Your task to perform on an android device: change the clock display to show seconds Image 0: 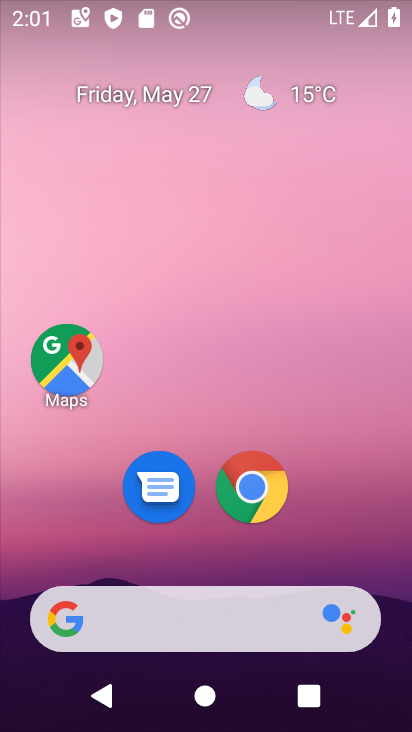
Step 0: drag from (326, 539) to (347, 126)
Your task to perform on an android device: change the clock display to show seconds Image 1: 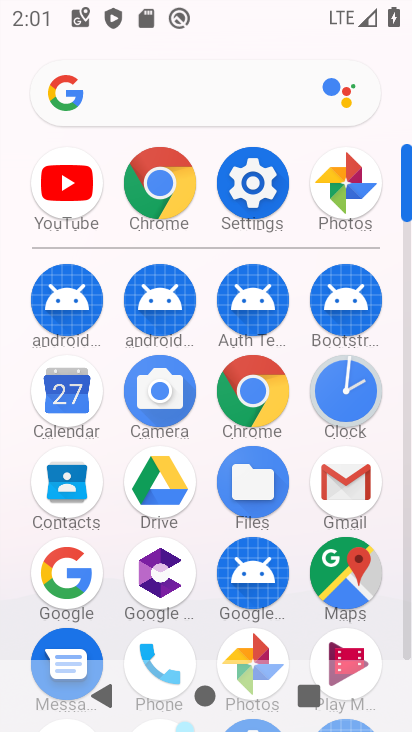
Step 1: click (260, 176)
Your task to perform on an android device: change the clock display to show seconds Image 2: 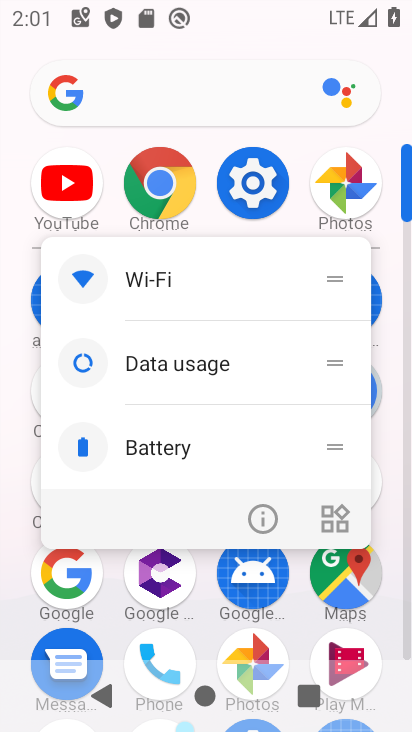
Step 2: click (393, 273)
Your task to perform on an android device: change the clock display to show seconds Image 3: 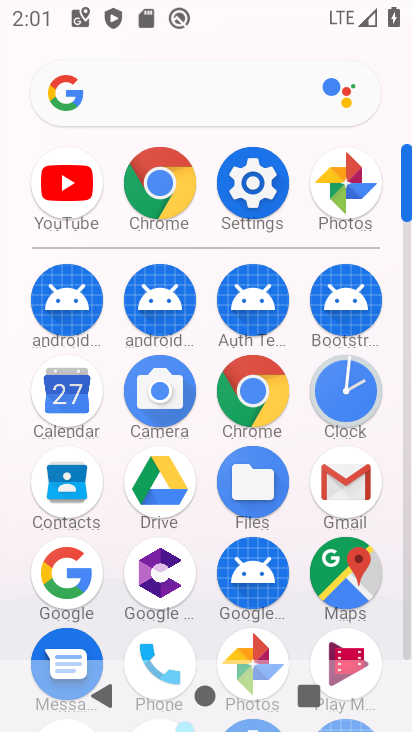
Step 3: click (337, 399)
Your task to perform on an android device: change the clock display to show seconds Image 4: 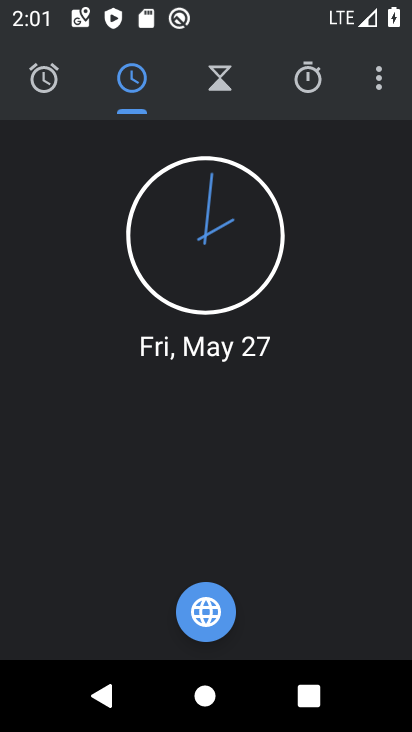
Step 4: click (383, 80)
Your task to perform on an android device: change the clock display to show seconds Image 5: 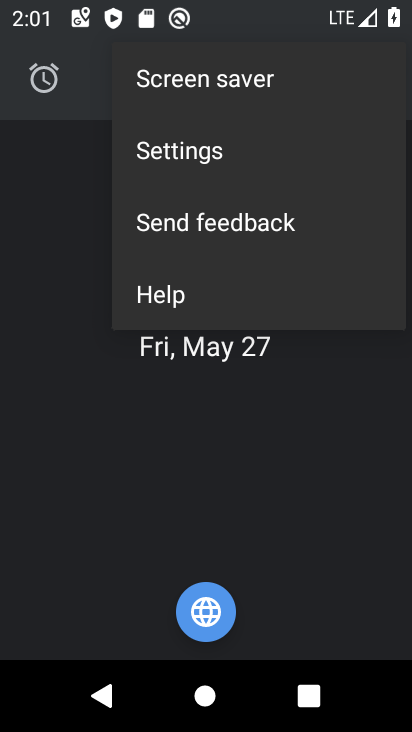
Step 5: click (220, 165)
Your task to perform on an android device: change the clock display to show seconds Image 6: 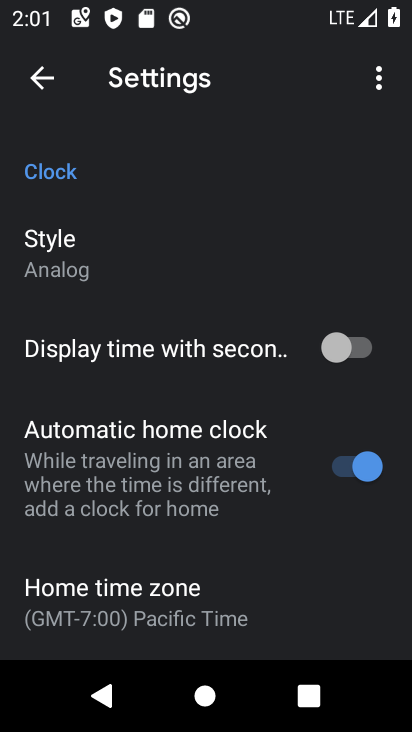
Step 6: click (359, 371)
Your task to perform on an android device: change the clock display to show seconds Image 7: 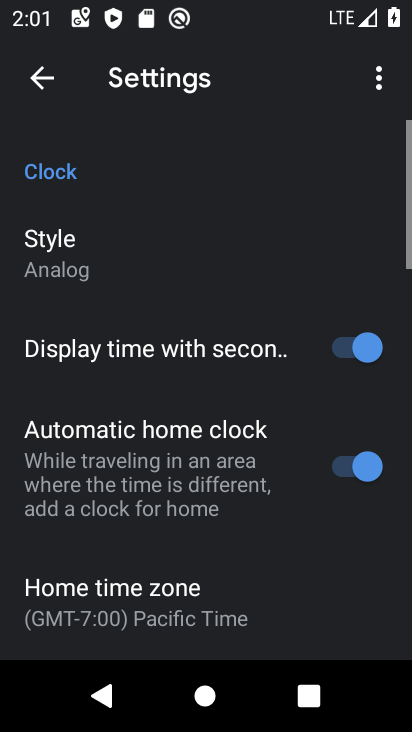
Step 7: task complete